Your task to perform on an android device: Show me productivity apps on the Play Store Image 0: 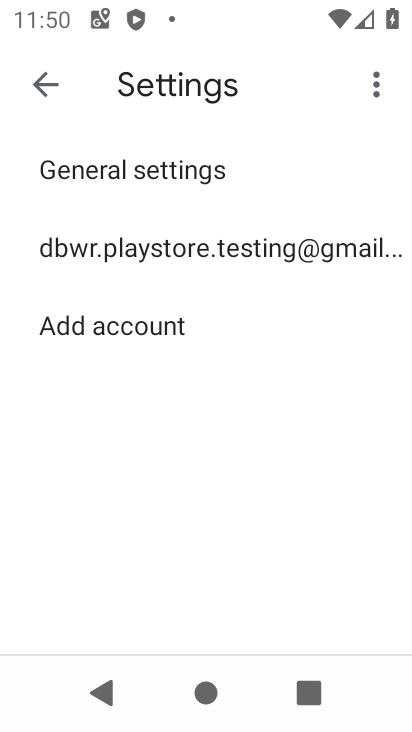
Step 0: press home button
Your task to perform on an android device: Show me productivity apps on the Play Store Image 1: 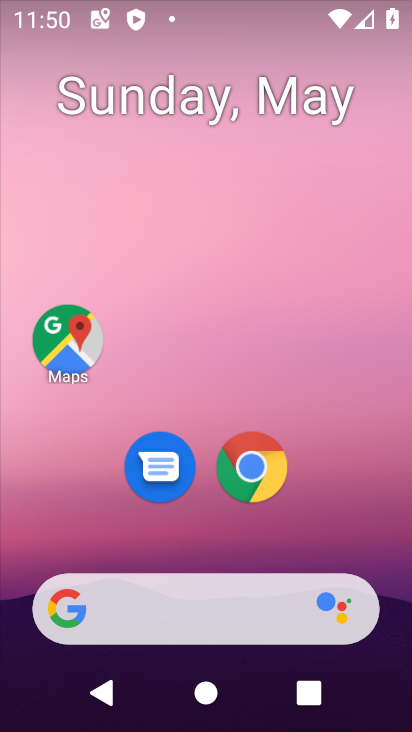
Step 1: drag from (390, 630) to (310, 103)
Your task to perform on an android device: Show me productivity apps on the Play Store Image 2: 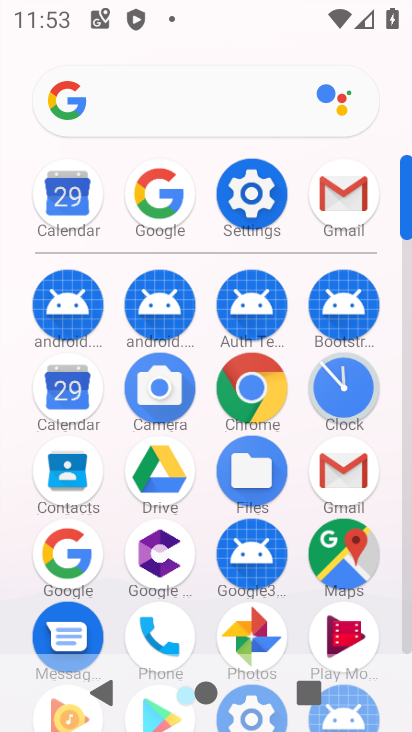
Step 2: drag from (206, 630) to (191, 195)
Your task to perform on an android device: Show me productivity apps on the Play Store Image 3: 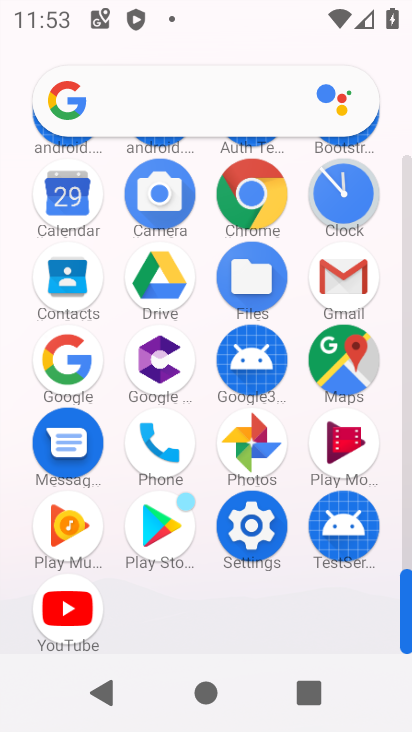
Step 3: click (151, 507)
Your task to perform on an android device: Show me productivity apps on the Play Store Image 4: 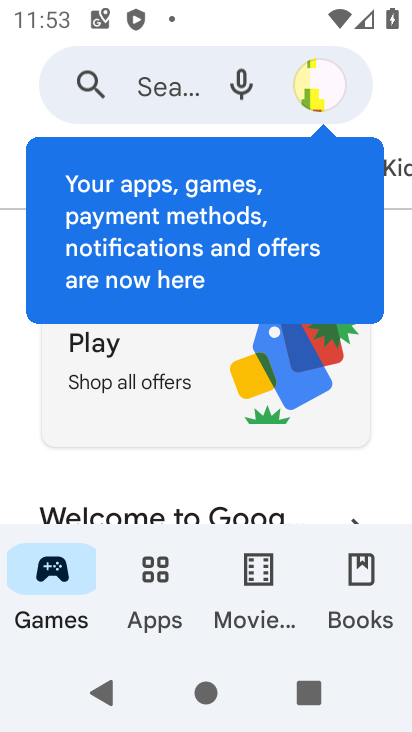
Step 4: task complete